Your task to perform on an android device: turn off javascript in the chrome app Image 0: 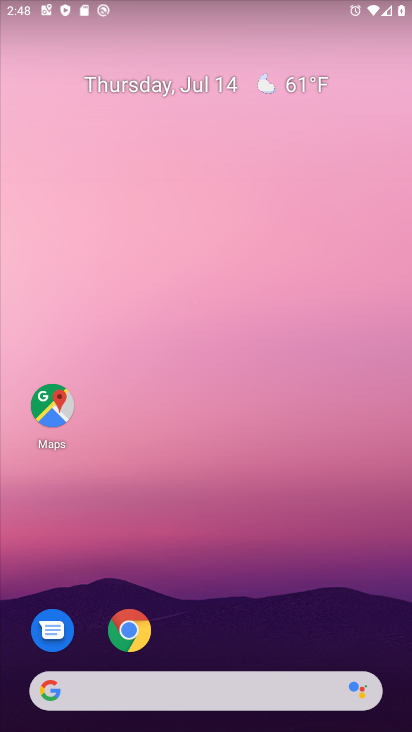
Step 0: click (126, 623)
Your task to perform on an android device: turn off javascript in the chrome app Image 1: 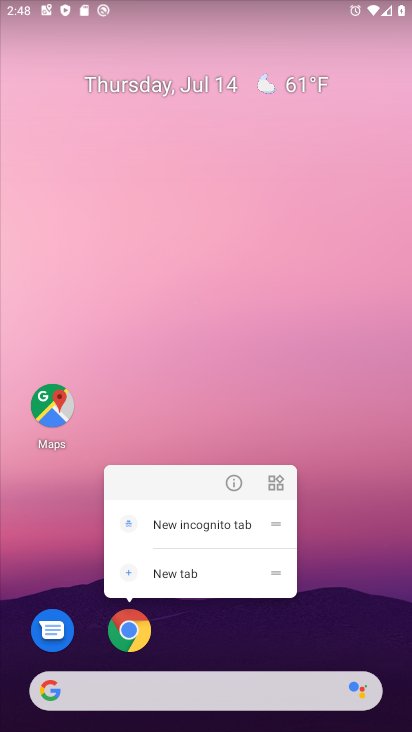
Step 1: click (128, 626)
Your task to perform on an android device: turn off javascript in the chrome app Image 2: 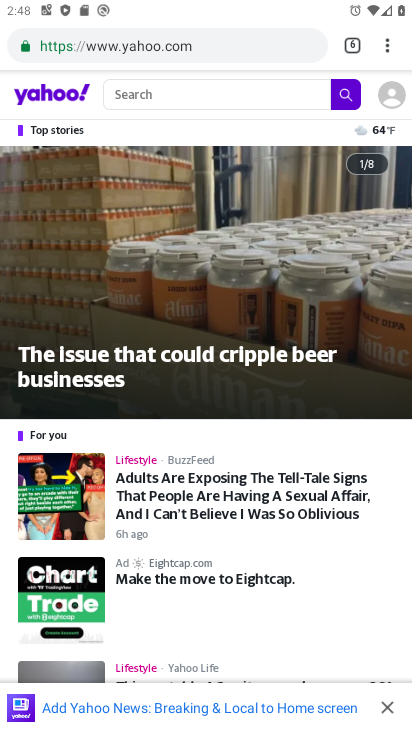
Step 2: drag from (383, 44) to (290, 597)
Your task to perform on an android device: turn off javascript in the chrome app Image 3: 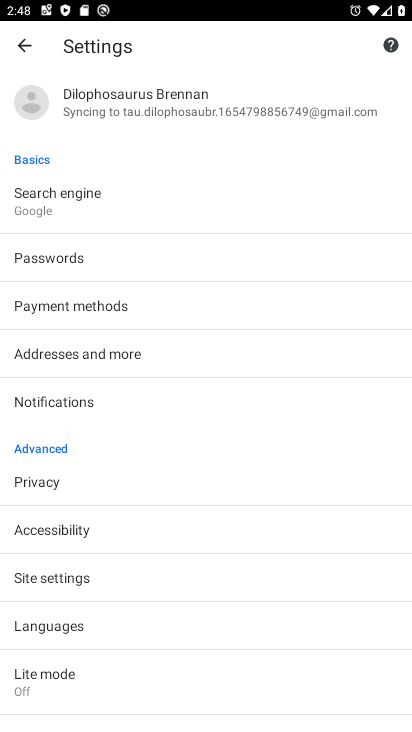
Step 3: click (66, 575)
Your task to perform on an android device: turn off javascript in the chrome app Image 4: 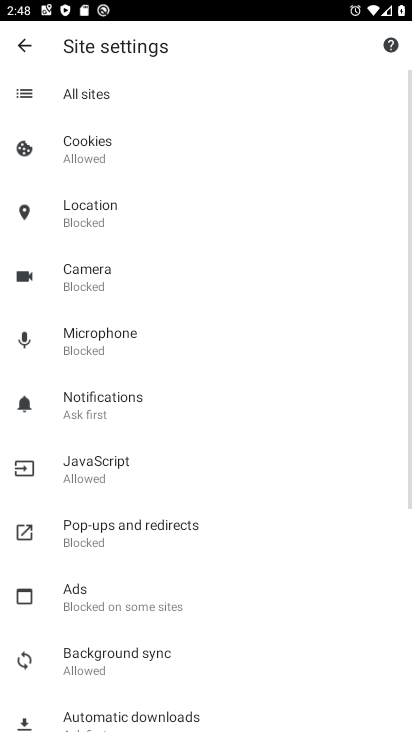
Step 4: click (120, 444)
Your task to perform on an android device: turn off javascript in the chrome app Image 5: 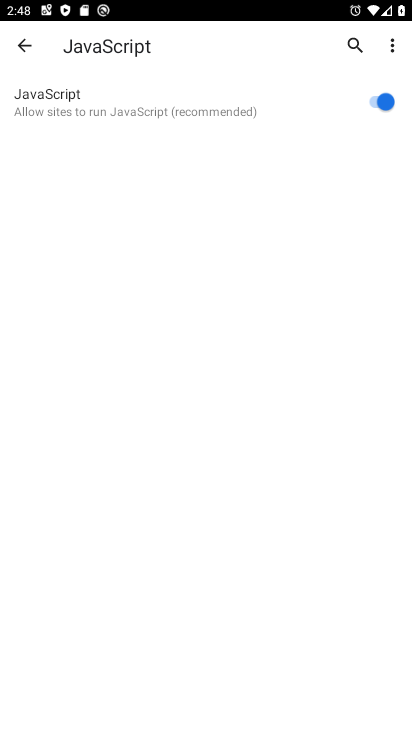
Step 5: click (372, 103)
Your task to perform on an android device: turn off javascript in the chrome app Image 6: 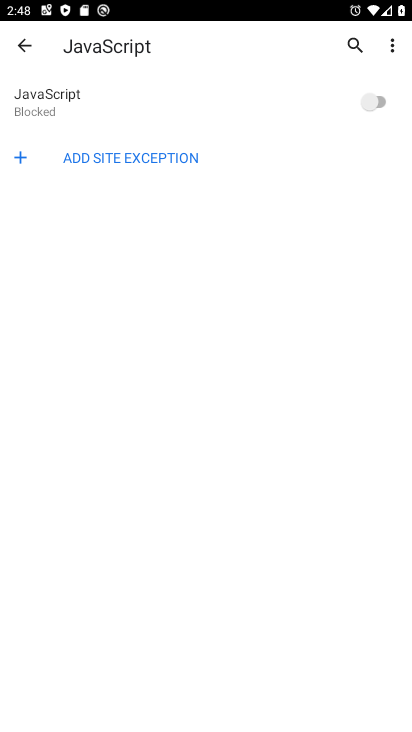
Step 6: task complete